Your task to perform on an android device: toggle show notifications on the lock screen Image 0: 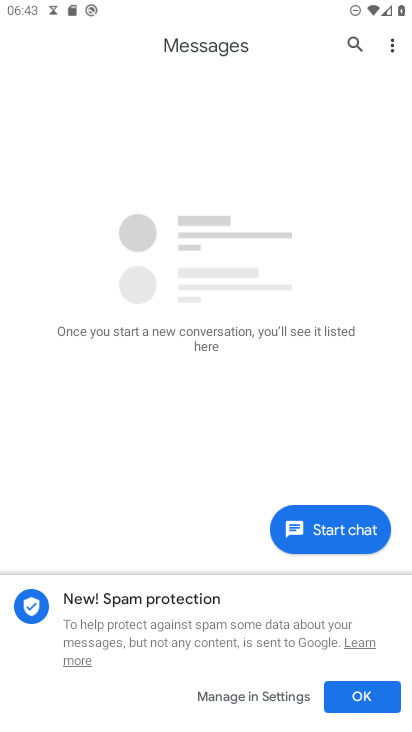
Step 0: press home button
Your task to perform on an android device: toggle show notifications on the lock screen Image 1: 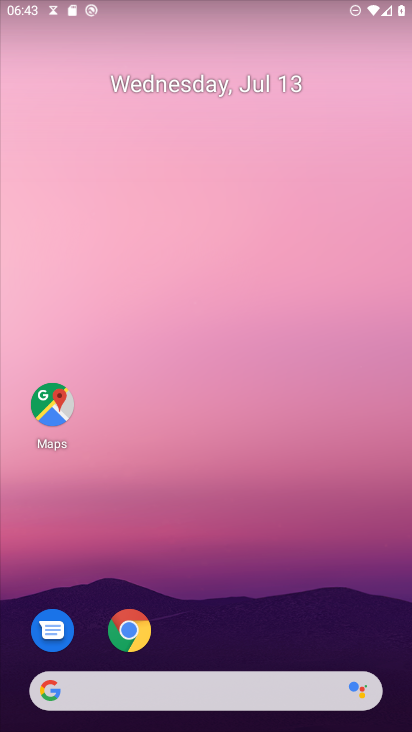
Step 1: drag from (276, 546) to (293, 189)
Your task to perform on an android device: toggle show notifications on the lock screen Image 2: 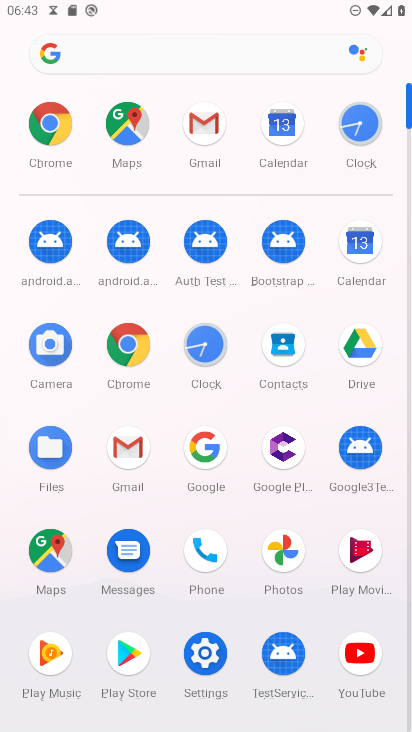
Step 2: click (208, 659)
Your task to perform on an android device: toggle show notifications on the lock screen Image 3: 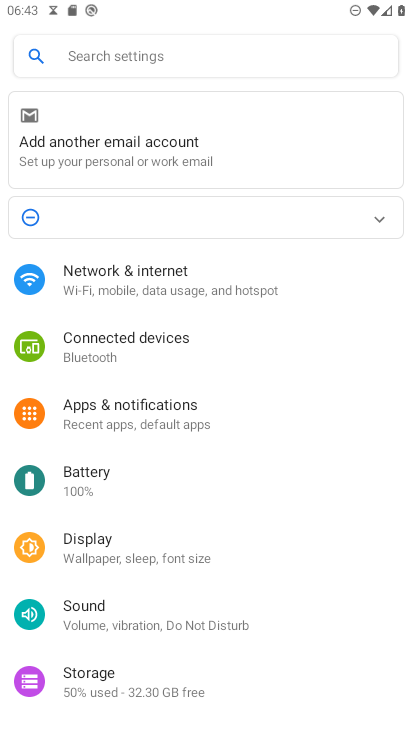
Step 3: click (133, 414)
Your task to perform on an android device: toggle show notifications on the lock screen Image 4: 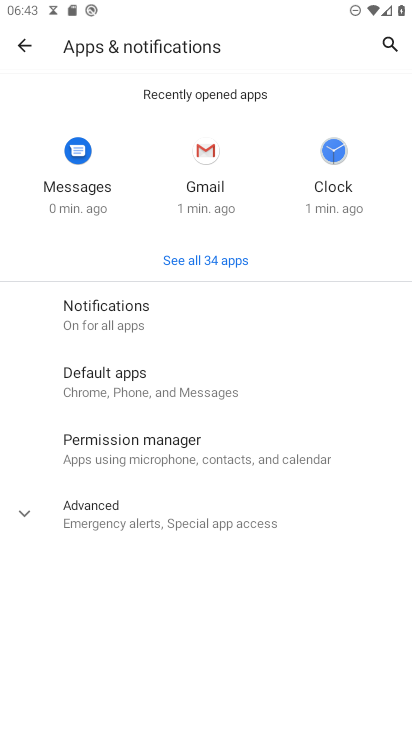
Step 4: click (133, 325)
Your task to perform on an android device: toggle show notifications on the lock screen Image 5: 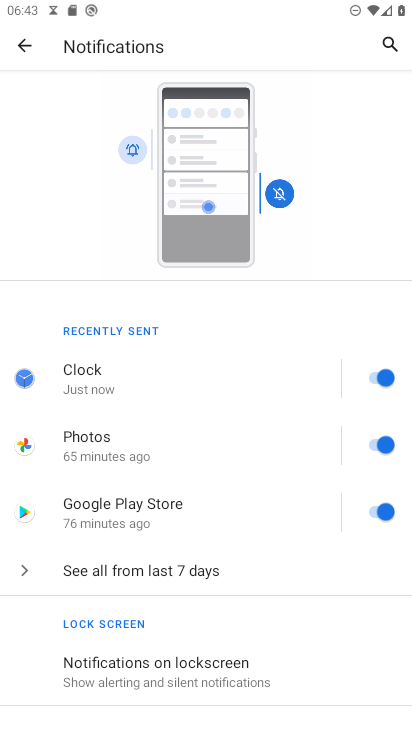
Step 5: click (191, 657)
Your task to perform on an android device: toggle show notifications on the lock screen Image 6: 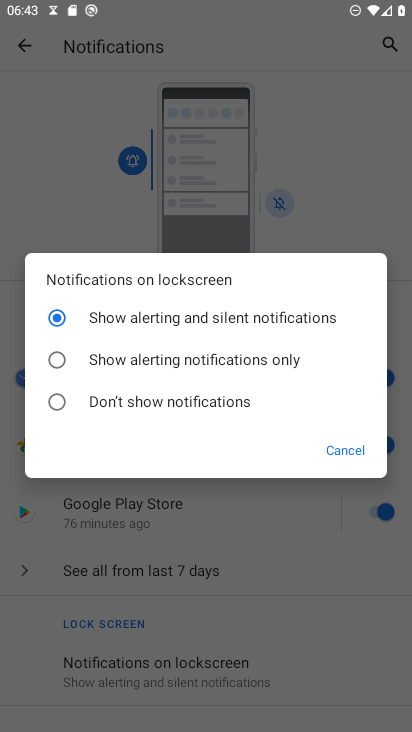
Step 6: click (57, 404)
Your task to perform on an android device: toggle show notifications on the lock screen Image 7: 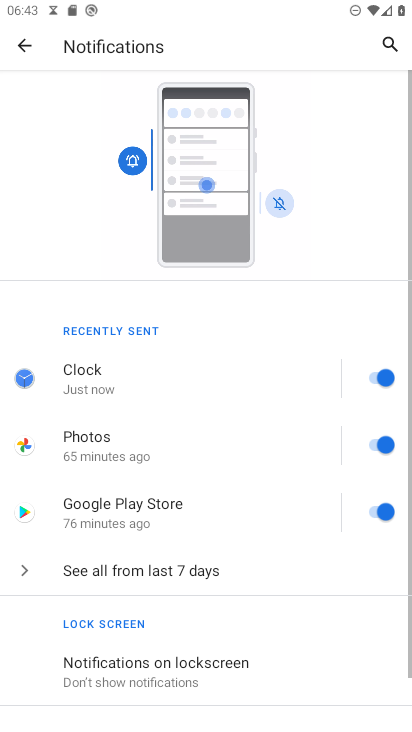
Step 7: task complete